Your task to perform on an android device: Open location settings Image 0: 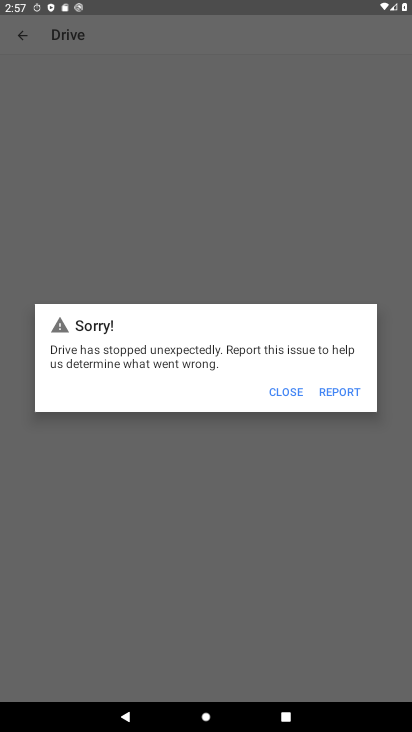
Step 0: press home button
Your task to perform on an android device: Open location settings Image 1: 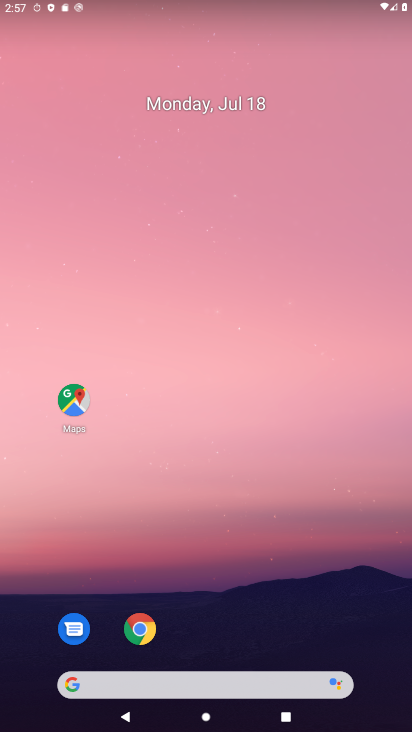
Step 1: drag from (195, 649) to (198, 171)
Your task to perform on an android device: Open location settings Image 2: 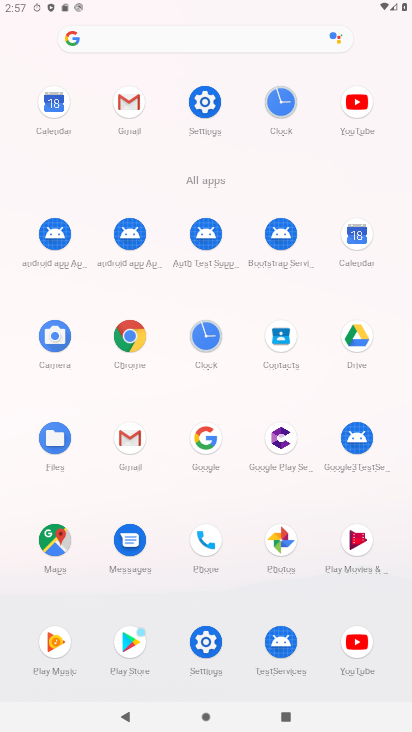
Step 2: click (204, 653)
Your task to perform on an android device: Open location settings Image 3: 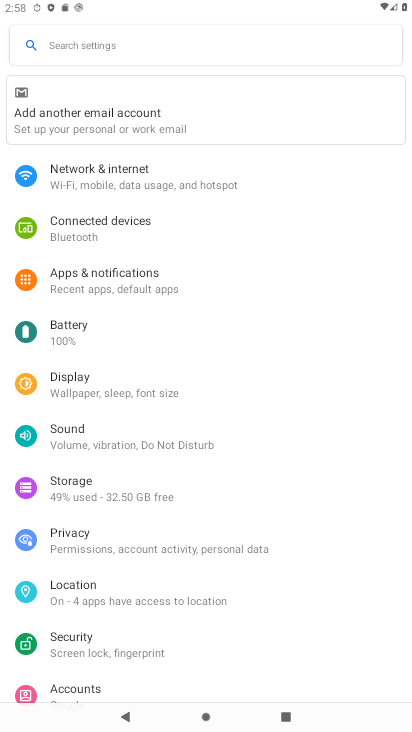
Step 3: click (88, 599)
Your task to perform on an android device: Open location settings Image 4: 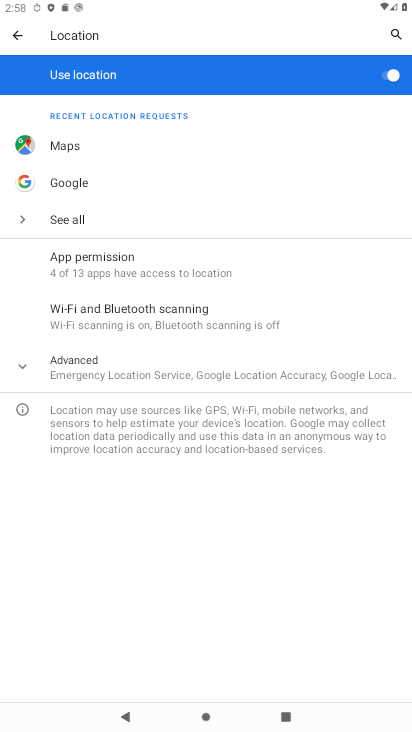
Step 4: task complete